Your task to perform on an android device: Search for "asus zenbook" on costco.com, select the first entry, add it to the cart, then select checkout. Image 0: 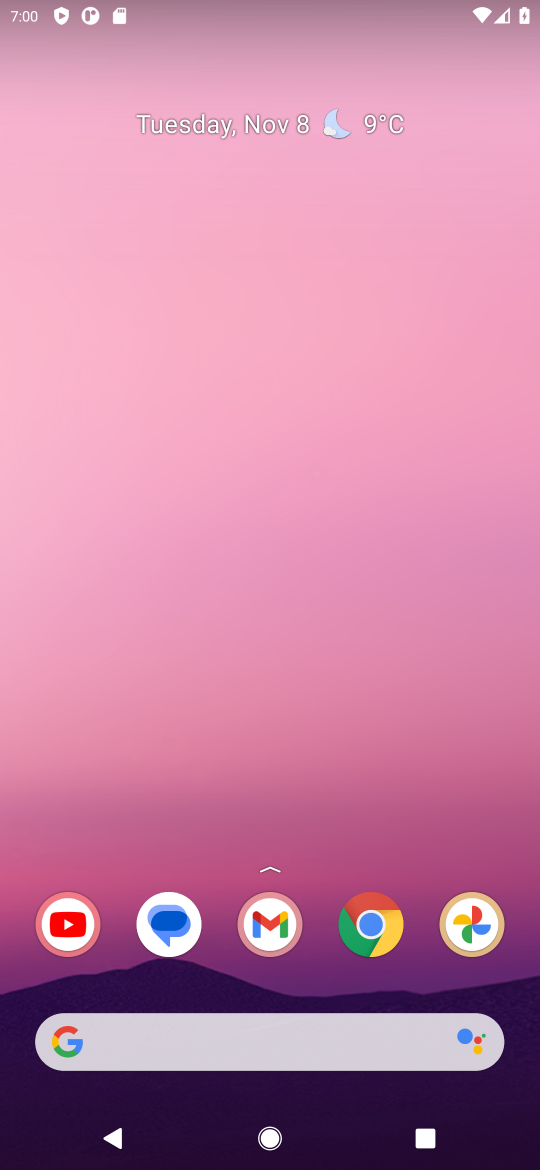
Step 0: click (270, 1037)
Your task to perform on an android device: Search for "asus zenbook" on costco.com, select the first entry, add it to the cart, then select checkout. Image 1: 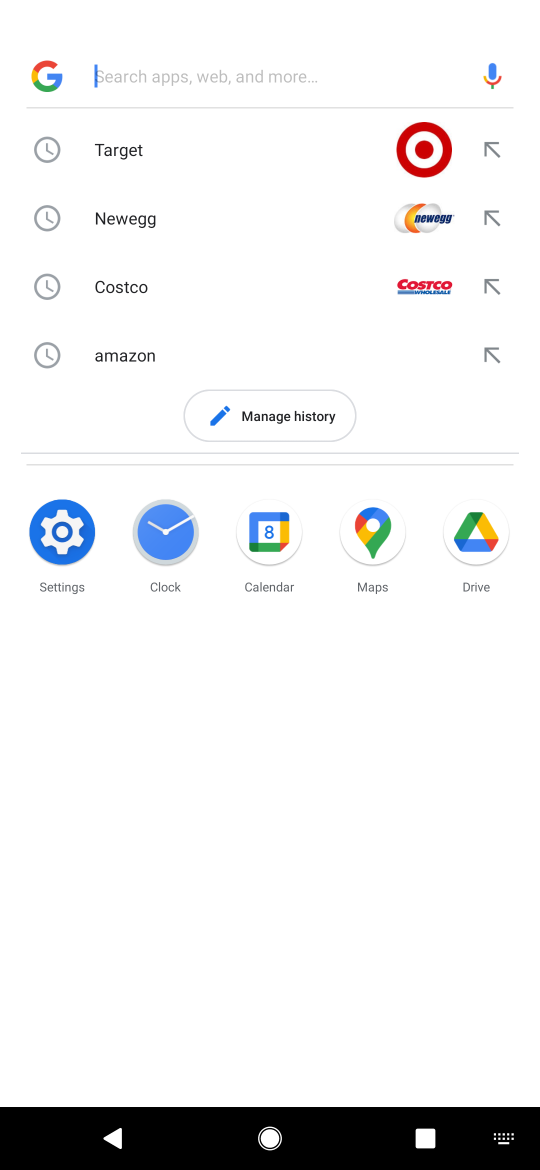
Step 1: click (157, 290)
Your task to perform on an android device: Search for "asus zenbook" on costco.com, select the first entry, add it to the cart, then select checkout. Image 2: 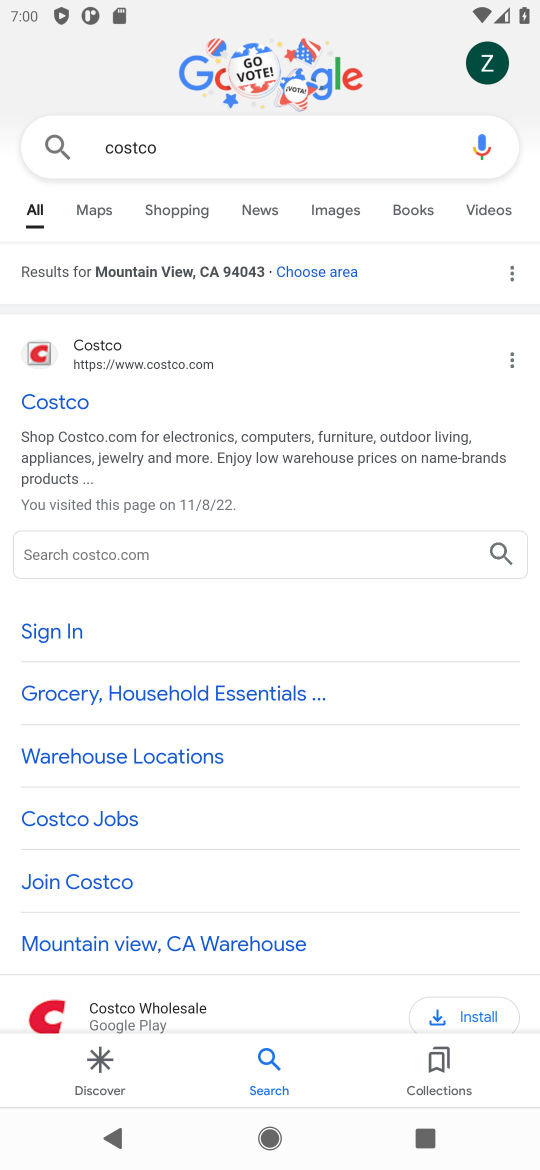
Step 2: click (96, 356)
Your task to perform on an android device: Search for "asus zenbook" on costco.com, select the first entry, add it to the cart, then select checkout. Image 3: 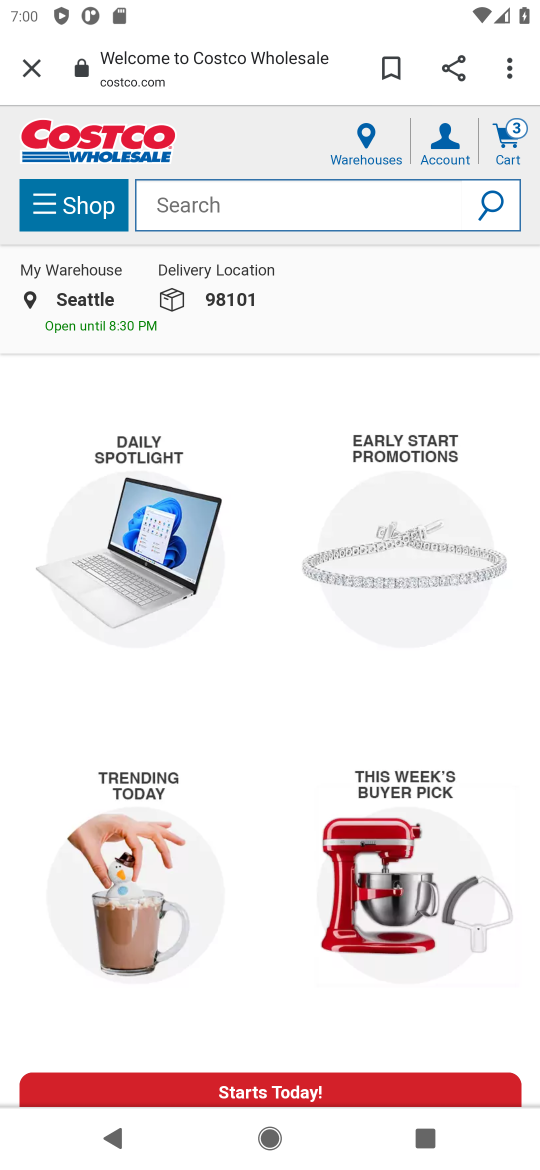
Step 3: click (291, 209)
Your task to perform on an android device: Search for "asus zenbook" on costco.com, select the first entry, add it to the cart, then select checkout. Image 4: 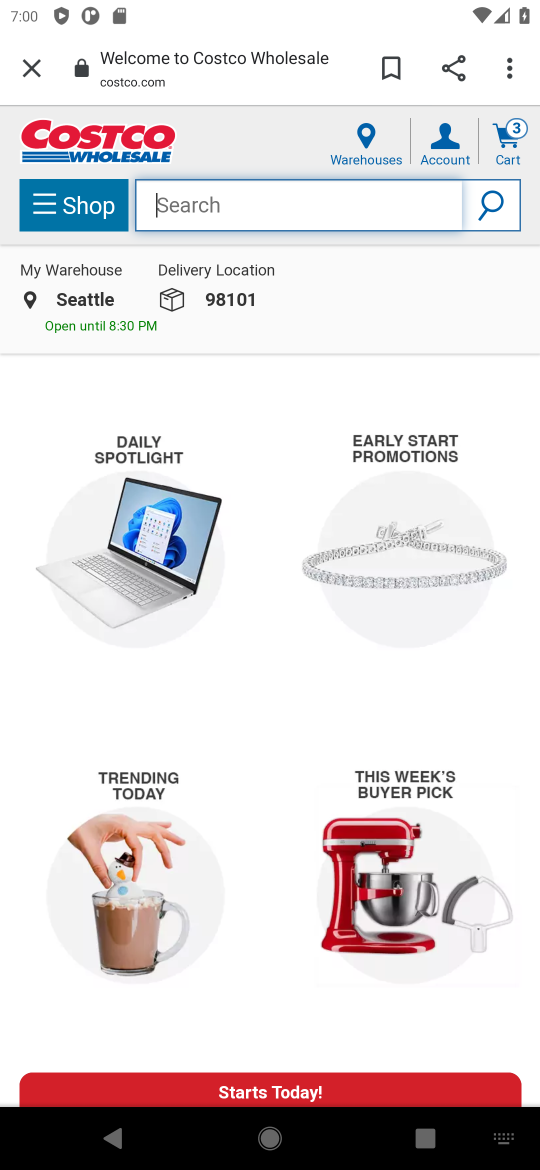
Step 4: type "asus zenbook"
Your task to perform on an android device: Search for "asus zenbook" on costco.com, select the first entry, add it to the cart, then select checkout. Image 5: 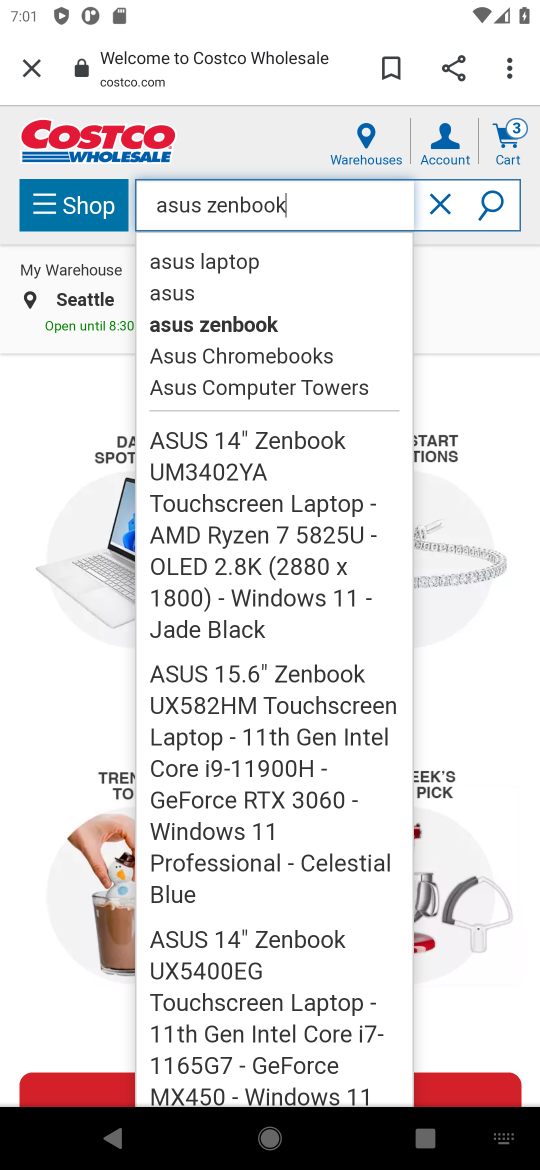
Step 5: click (193, 332)
Your task to perform on an android device: Search for "asus zenbook" on costco.com, select the first entry, add it to the cart, then select checkout. Image 6: 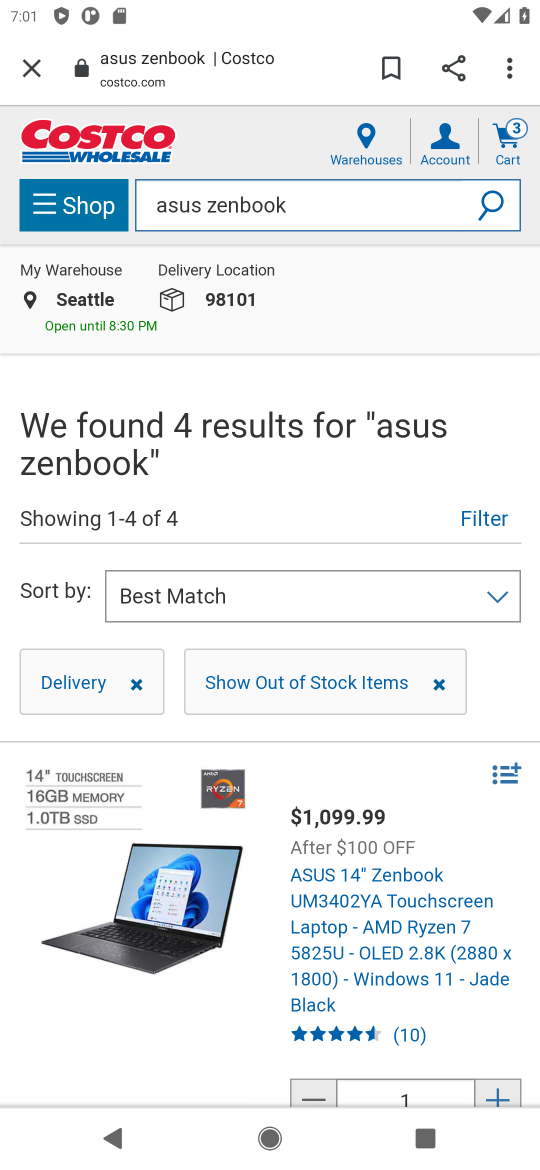
Step 6: drag from (252, 819) to (274, 625)
Your task to perform on an android device: Search for "asus zenbook" on costco.com, select the first entry, add it to the cart, then select checkout. Image 7: 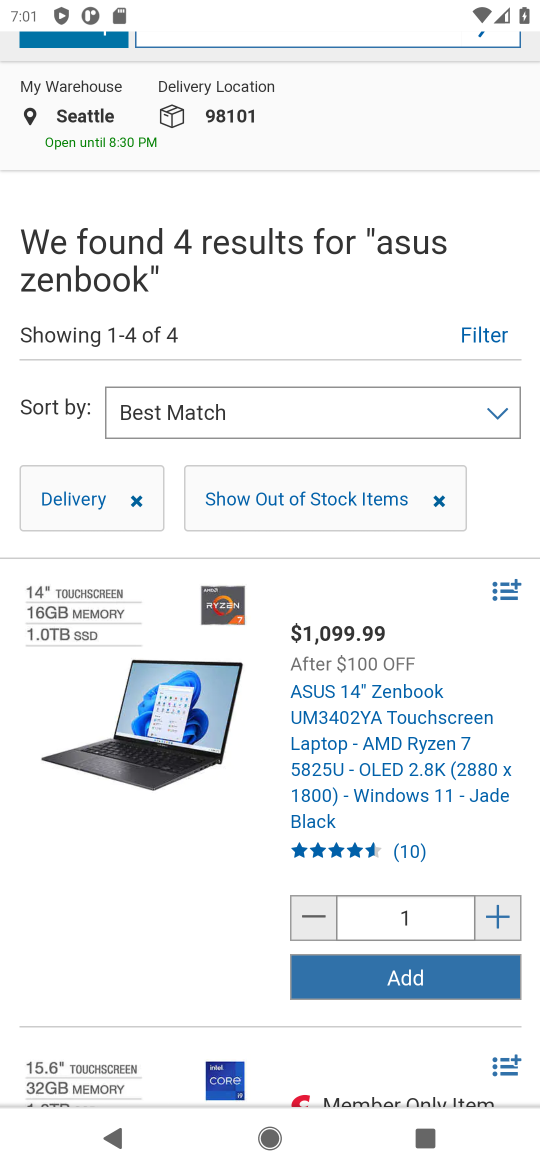
Step 7: click (391, 987)
Your task to perform on an android device: Search for "asus zenbook" on costco.com, select the first entry, add it to the cart, then select checkout. Image 8: 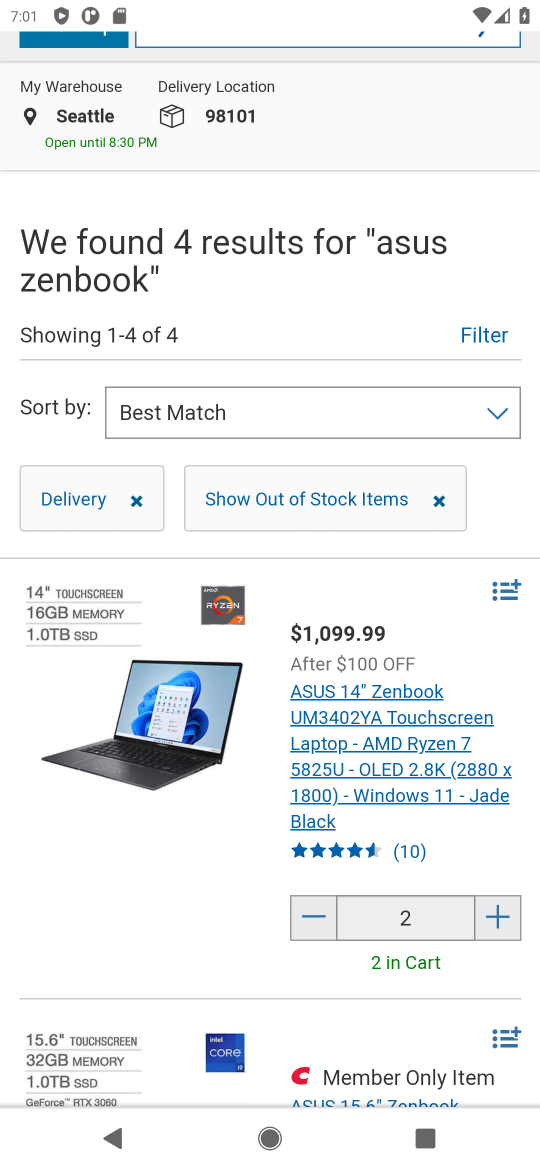
Step 8: drag from (429, 466) to (411, 698)
Your task to perform on an android device: Search for "asus zenbook" on costco.com, select the first entry, add it to the cart, then select checkout. Image 9: 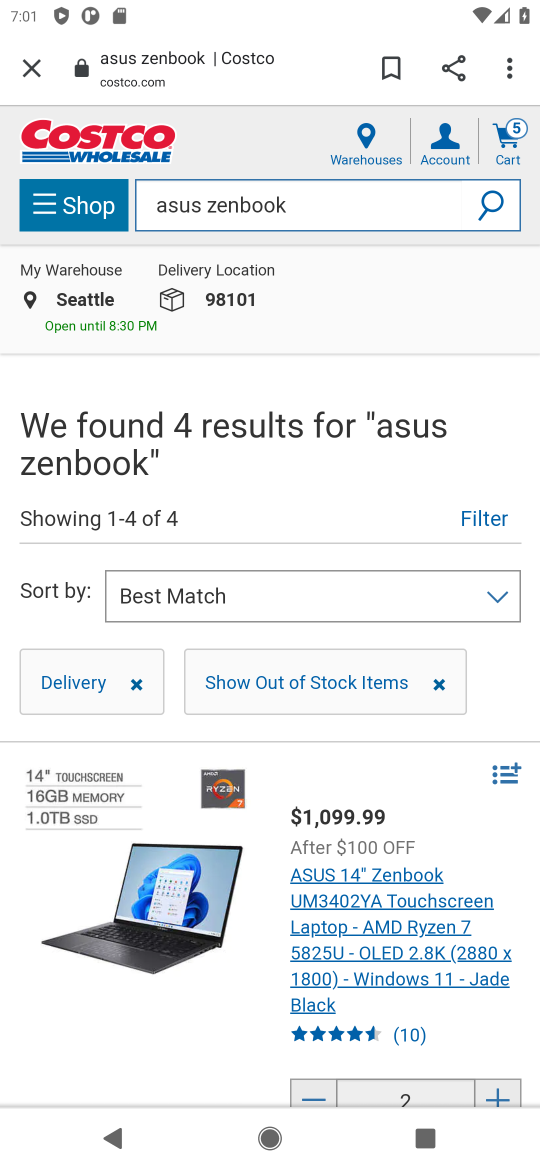
Step 9: click (511, 133)
Your task to perform on an android device: Search for "asus zenbook" on costco.com, select the first entry, add it to the cart, then select checkout. Image 10: 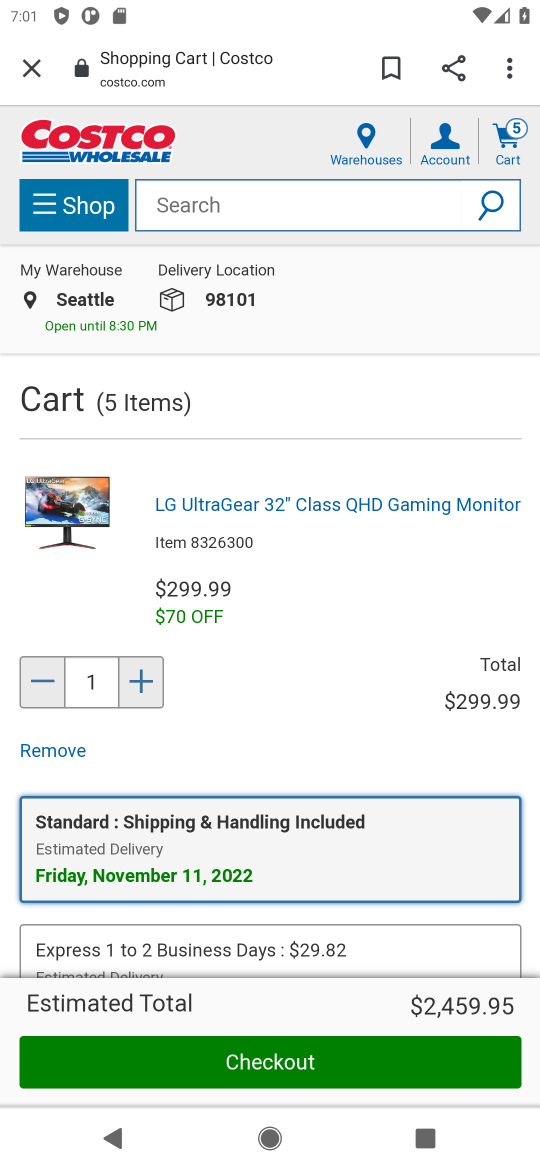
Step 10: click (284, 1058)
Your task to perform on an android device: Search for "asus zenbook" on costco.com, select the first entry, add it to the cart, then select checkout. Image 11: 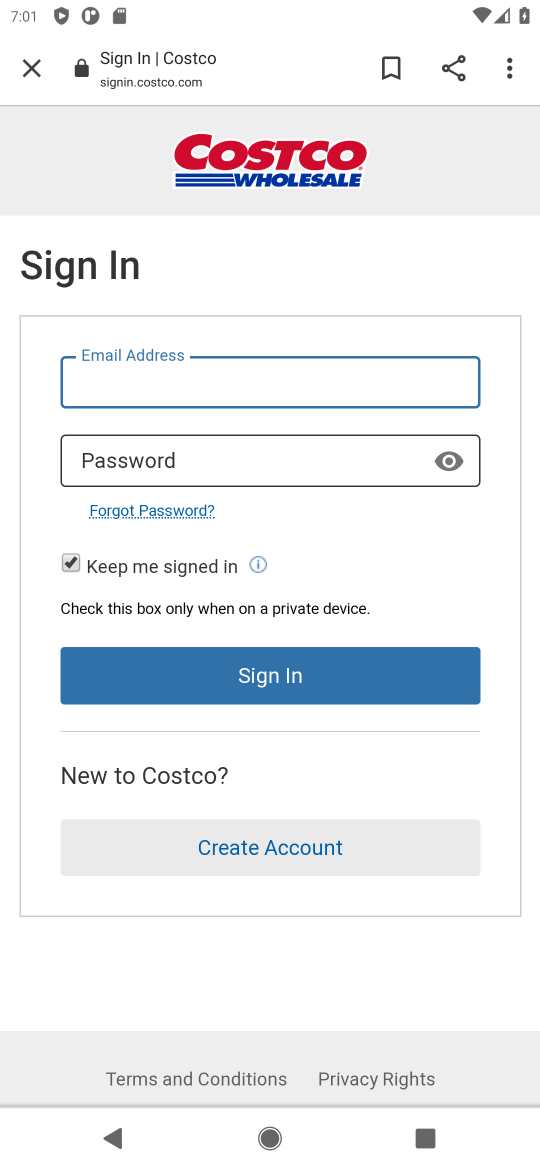
Step 11: task complete